Your task to perform on an android device: turn off translation in the chrome app Image 0: 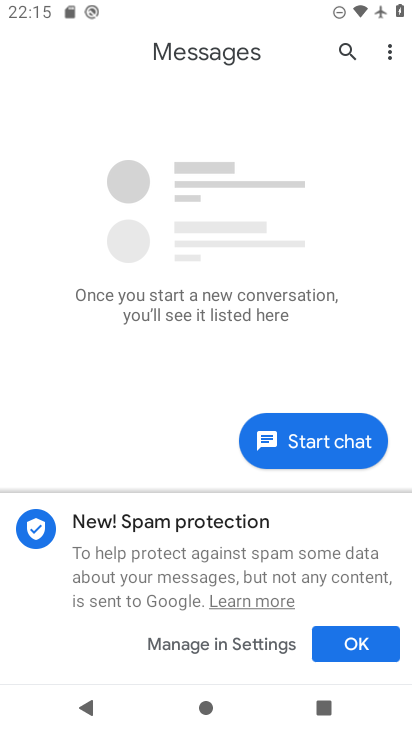
Step 0: press home button
Your task to perform on an android device: turn off translation in the chrome app Image 1: 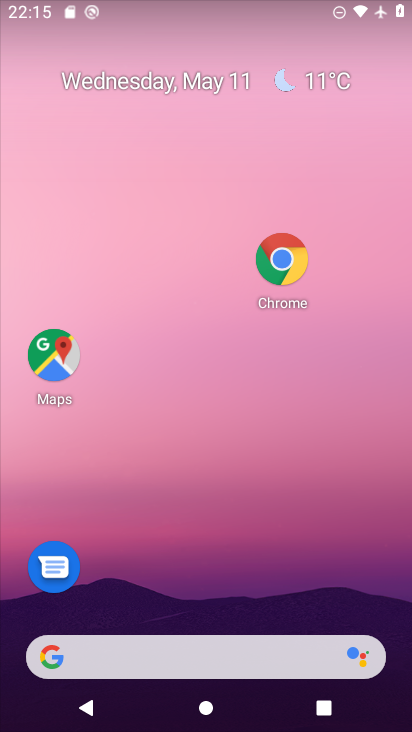
Step 1: drag from (122, 664) to (229, 236)
Your task to perform on an android device: turn off translation in the chrome app Image 2: 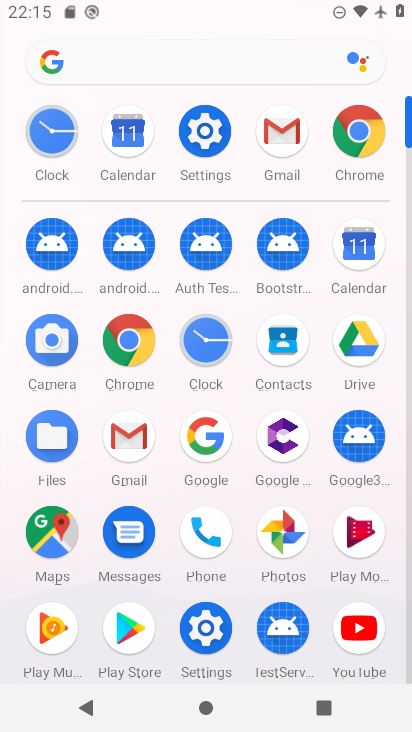
Step 2: click (368, 149)
Your task to perform on an android device: turn off translation in the chrome app Image 3: 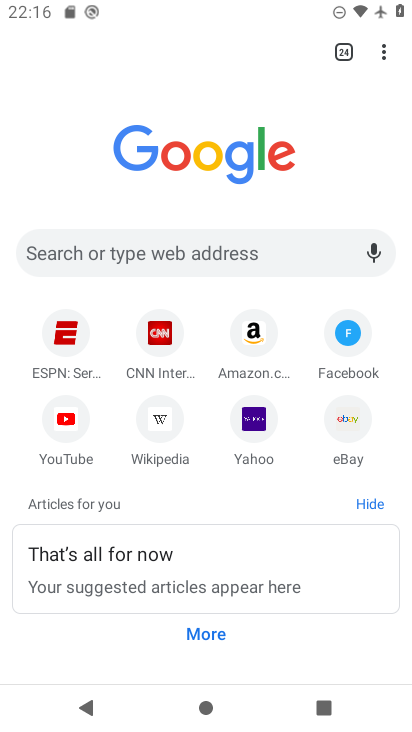
Step 3: drag from (383, 55) to (224, 441)
Your task to perform on an android device: turn off translation in the chrome app Image 4: 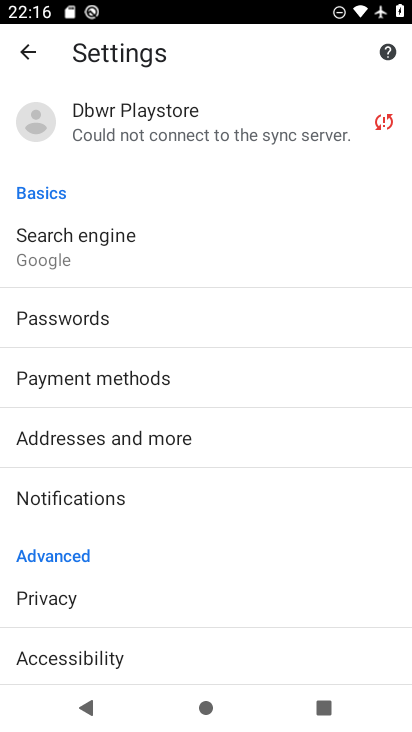
Step 4: drag from (130, 633) to (228, 364)
Your task to perform on an android device: turn off translation in the chrome app Image 5: 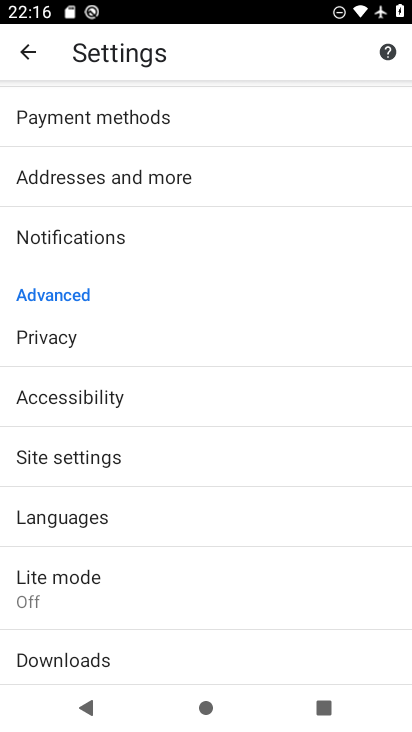
Step 5: click (45, 522)
Your task to perform on an android device: turn off translation in the chrome app Image 6: 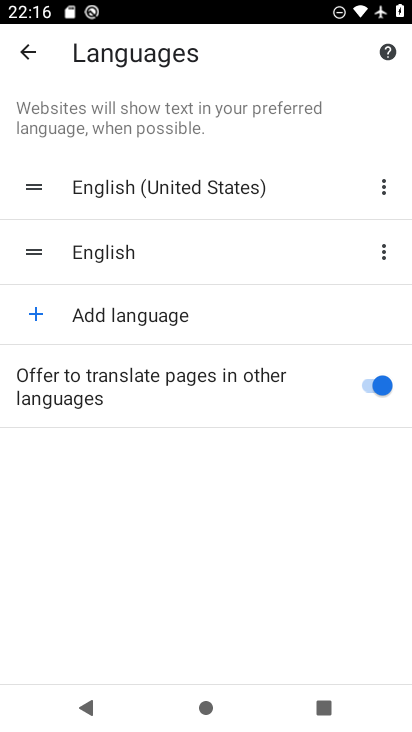
Step 6: click (372, 384)
Your task to perform on an android device: turn off translation in the chrome app Image 7: 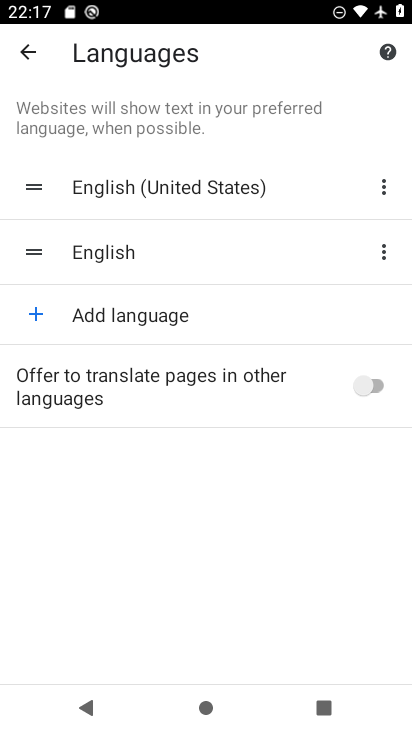
Step 7: task complete